Your task to perform on an android device: Open Google Image 0: 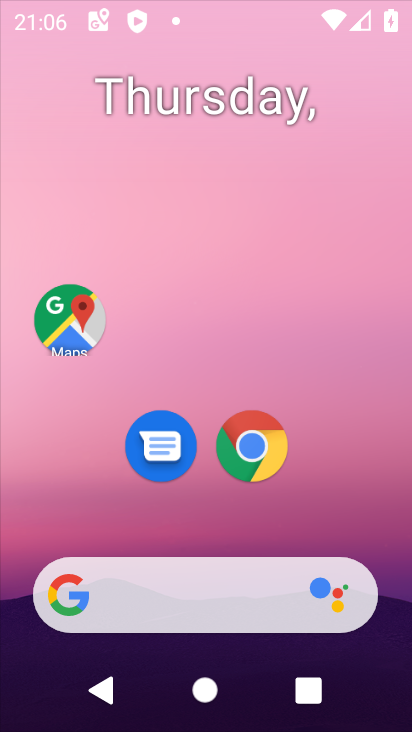
Step 0: press home button
Your task to perform on an android device: Open Google Image 1: 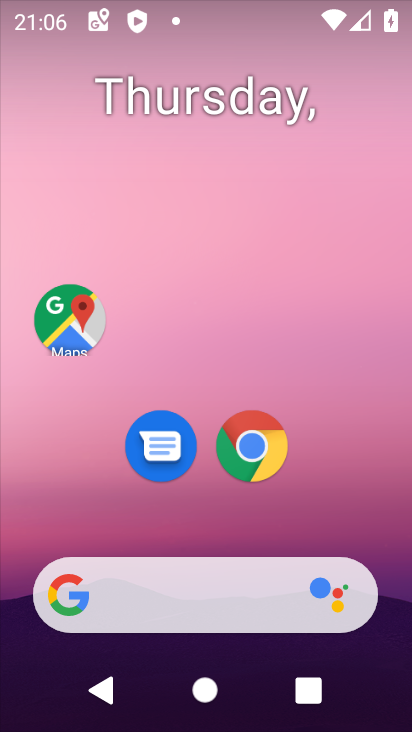
Step 1: drag from (58, 488) to (21, 6)
Your task to perform on an android device: Open Google Image 2: 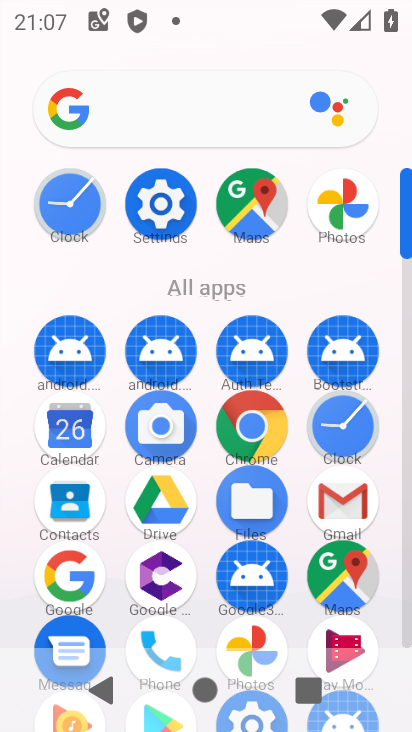
Step 2: drag from (327, 551) to (214, 208)
Your task to perform on an android device: Open Google Image 3: 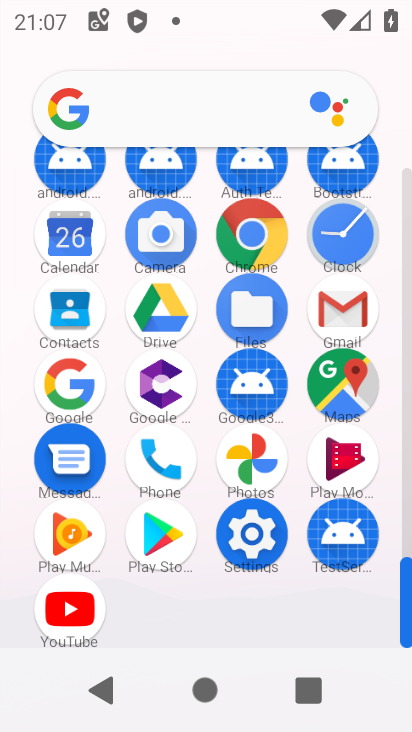
Step 3: click (61, 380)
Your task to perform on an android device: Open Google Image 4: 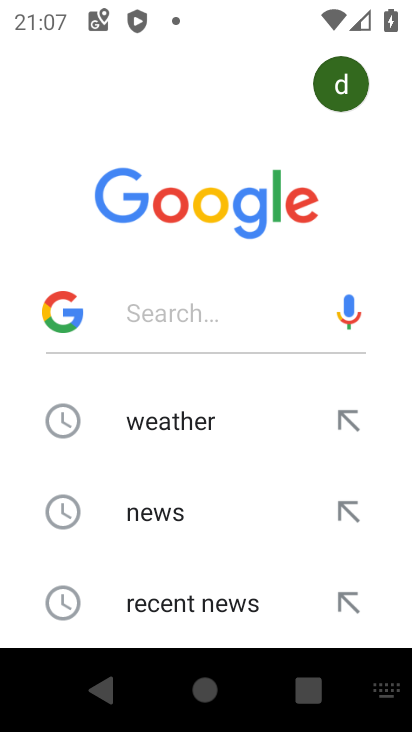
Step 4: task complete